Your task to perform on an android device: turn on the 24-hour format for clock Image 0: 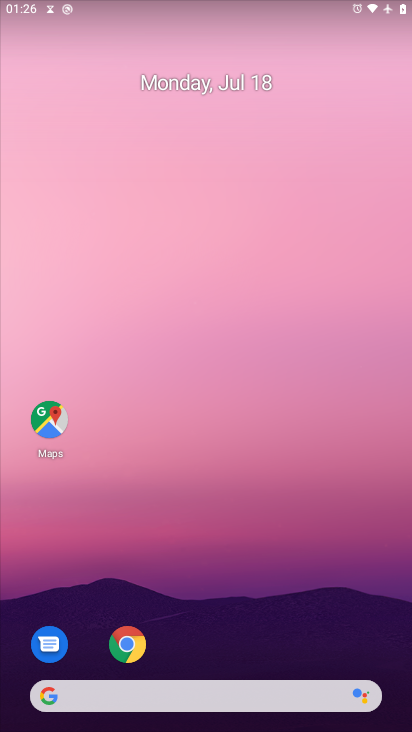
Step 0: press home button
Your task to perform on an android device: turn on the 24-hour format for clock Image 1: 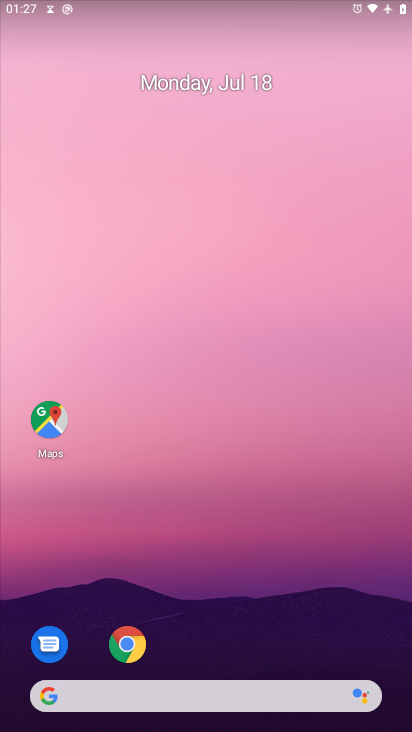
Step 1: drag from (240, 648) to (379, 389)
Your task to perform on an android device: turn on the 24-hour format for clock Image 2: 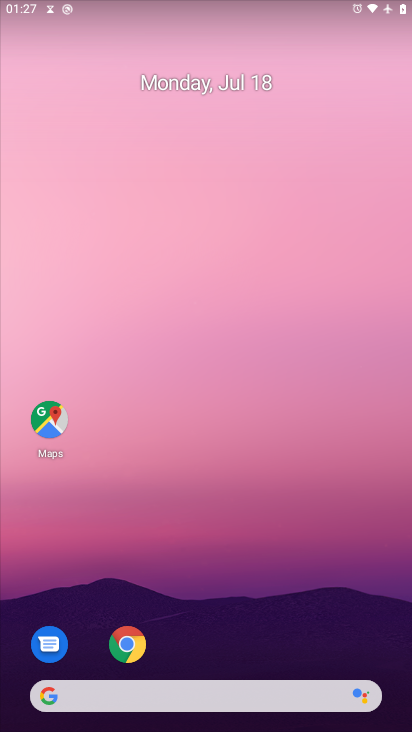
Step 2: drag from (247, 636) to (297, 1)
Your task to perform on an android device: turn on the 24-hour format for clock Image 3: 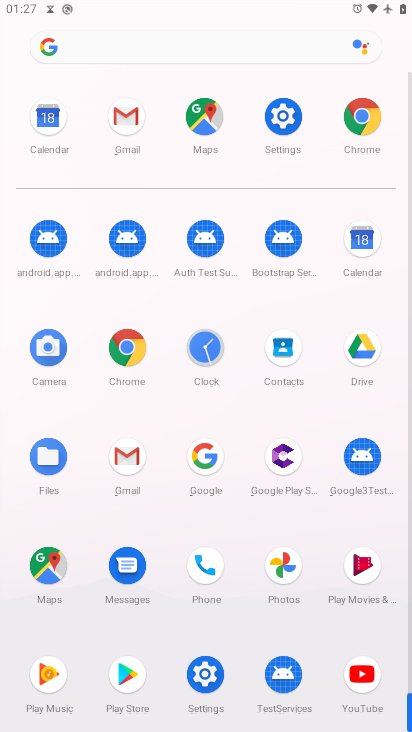
Step 3: click (275, 118)
Your task to perform on an android device: turn on the 24-hour format for clock Image 4: 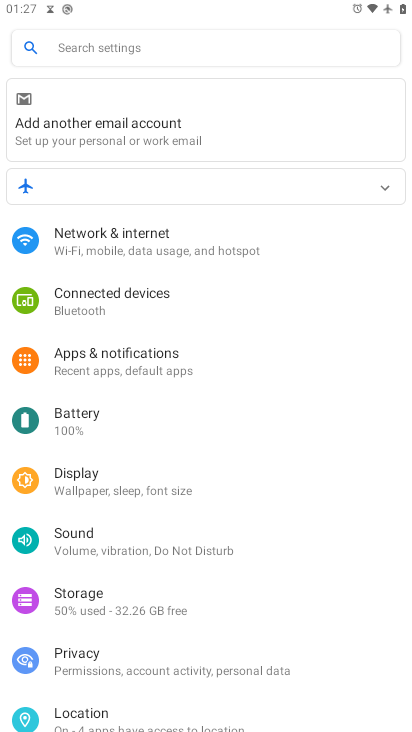
Step 4: drag from (338, 700) to (339, 11)
Your task to perform on an android device: turn on the 24-hour format for clock Image 5: 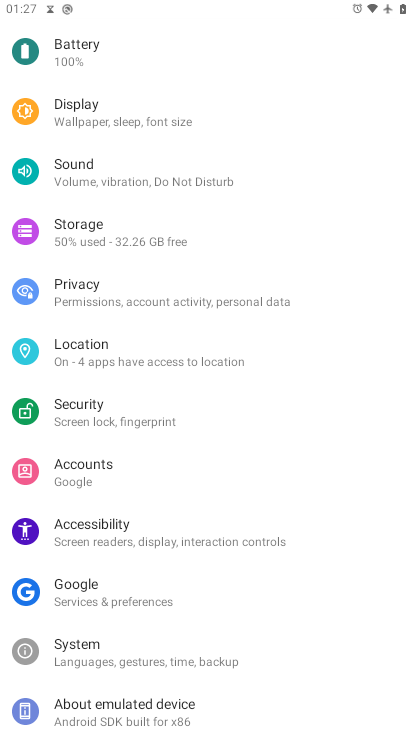
Step 5: click (111, 665)
Your task to perform on an android device: turn on the 24-hour format for clock Image 6: 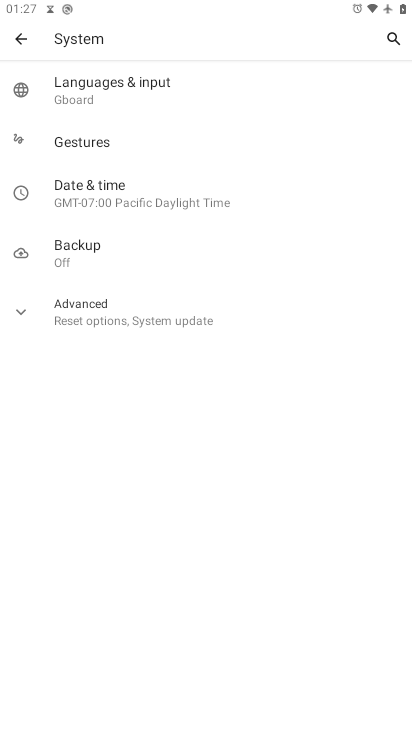
Step 6: click (85, 203)
Your task to perform on an android device: turn on the 24-hour format for clock Image 7: 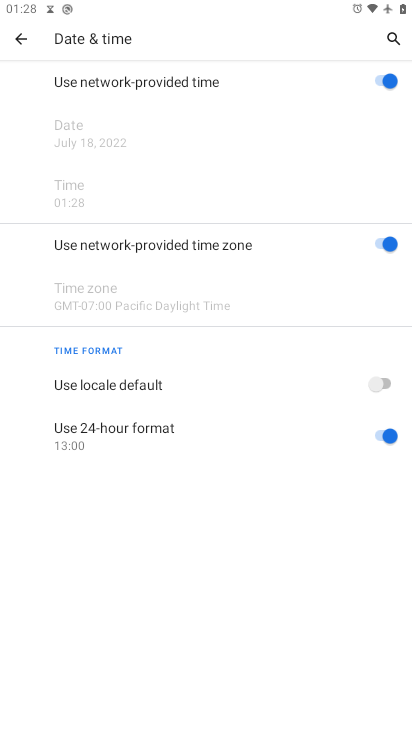
Step 7: task complete